Your task to perform on an android device: turn vacation reply on in the gmail app Image 0: 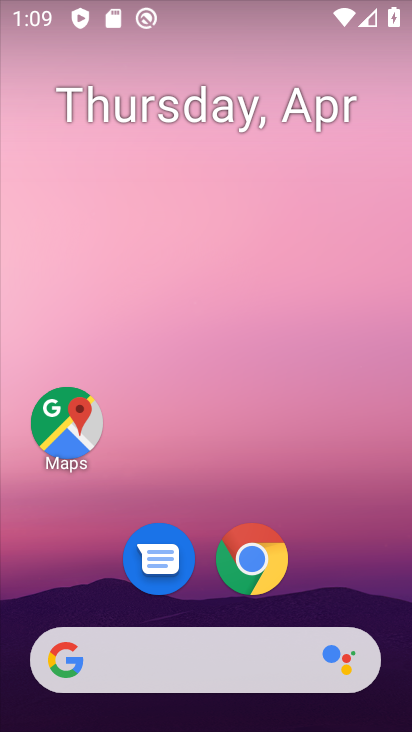
Step 0: drag from (213, 659) to (282, 342)
Your task to perform on an android device: turn vacation reply on in the gmail app Image 1: 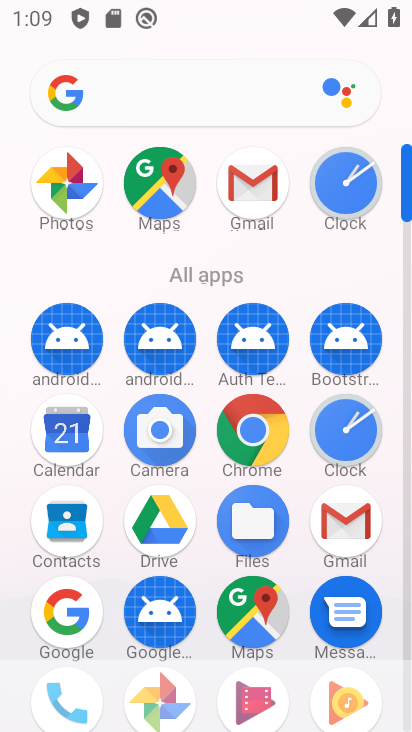
Step 1: drag from (236, 544) to (267, 260)
Your task to perform on an android device: turn vacation reply on in the gmail app Image 2: 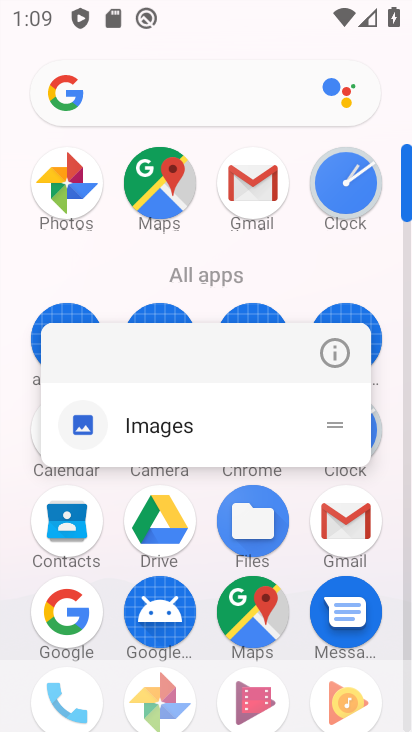
Step 2: drag from (203, 487) to (289, 198)
Your task to perform on an android device: turn vacation reply on in the gmail app Image 3: 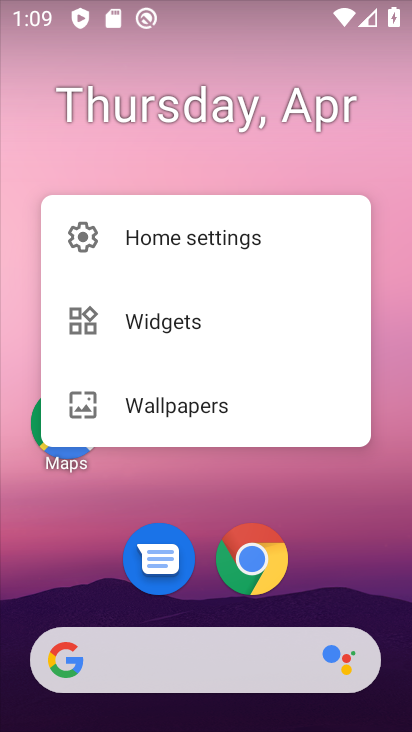
Step 3: click (294, 504)
Your task to perform on an android device: turn vacation reply on in the gmail app Image 4: 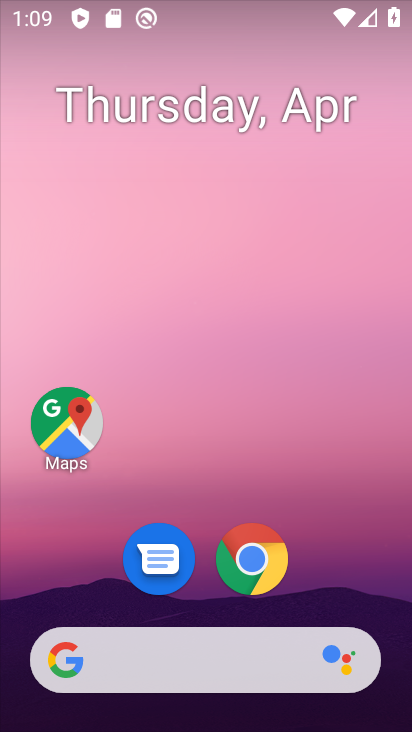
Step 4: drag from (169, 714) to (332, 257)
Your task to perform on an android device: turn vacation reply on in the gmail app Image 5: 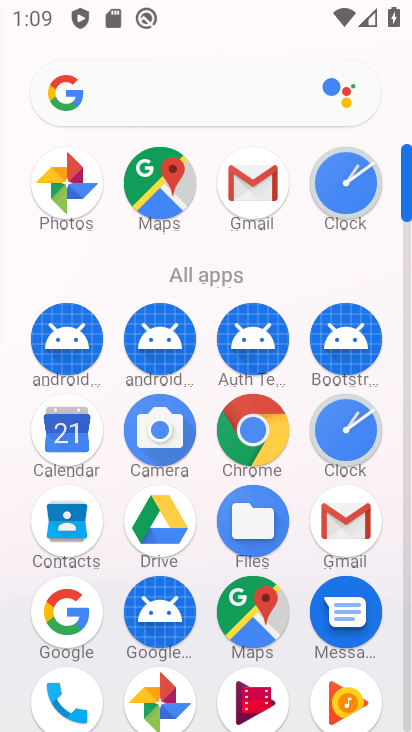
Step 5: click (355, 520)
Your task to perform on an android device: turn vacation reply on in the gmail app Image 6: 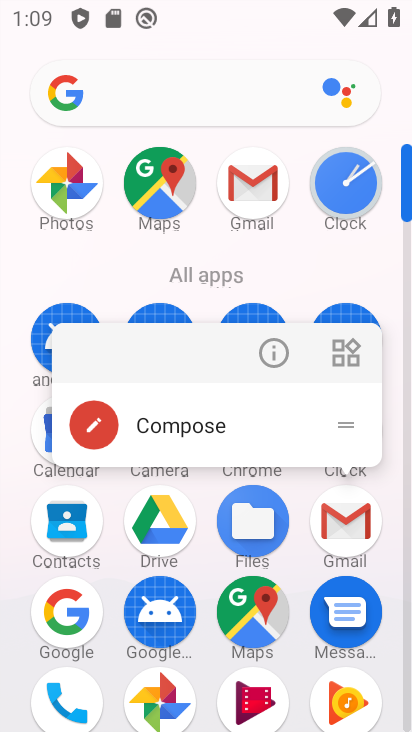
Step 6: click (356, 522)
Your task to perform on an android device: turn vacation reply on in the gmail app Image 7: 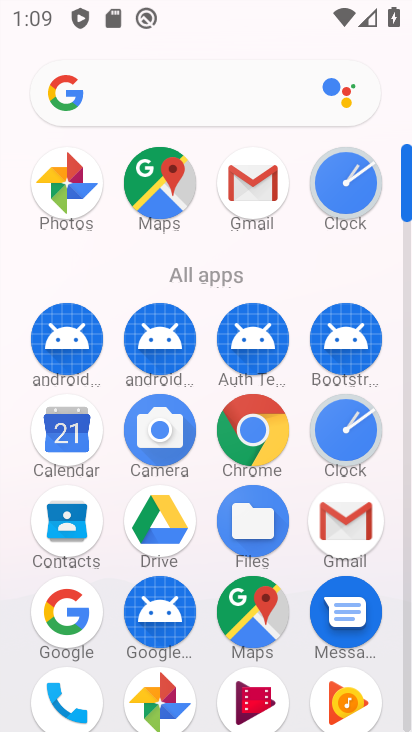
Step 7: click (356, 522)
Your task to perform on an android device: turn vacation reply on in the gmail app Image 8: 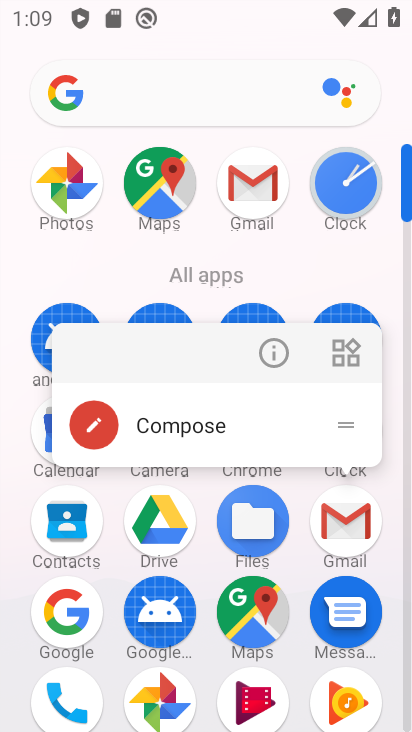
Step 8: click (356, 522)
Your task to perform on an android device: turn vacation reply on in the gmail app Image 9: 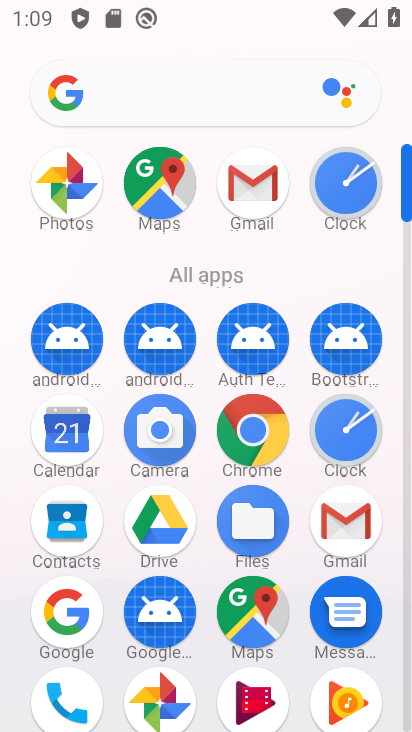
Step 9: click (356, 522)
Your task to perform on an android device: turn vacation reply on in the gmail app Image 10: 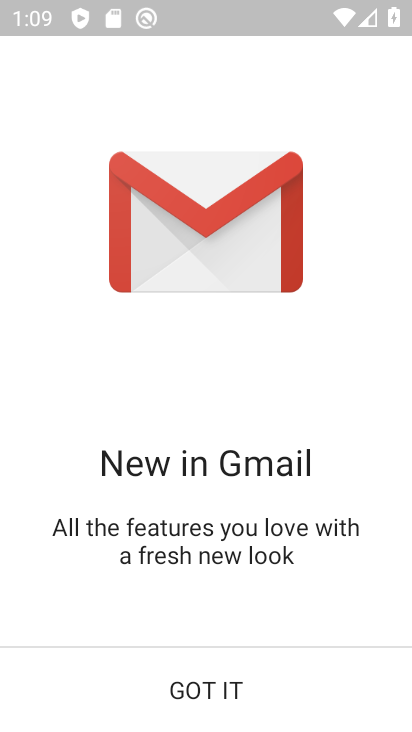
Step 10: click (227, 689)
Your task to perform on an android device: turn vacation reply on in the gmail app Image 11: 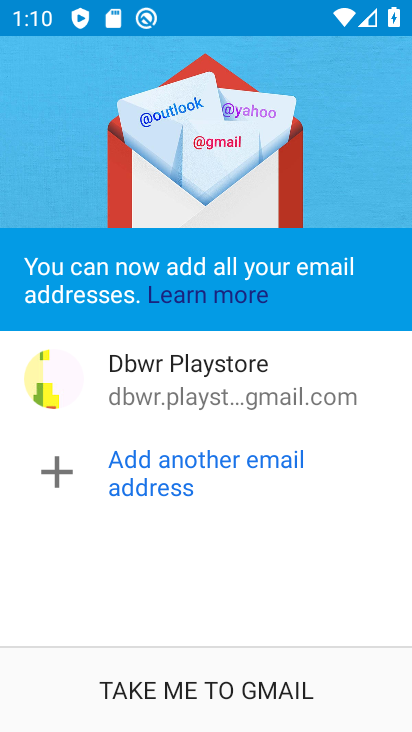
Step 11: drag from (258, 595) to (307, 384)
Your task to perform on an android device: turn vacation reply on in the gmail app Image 12: 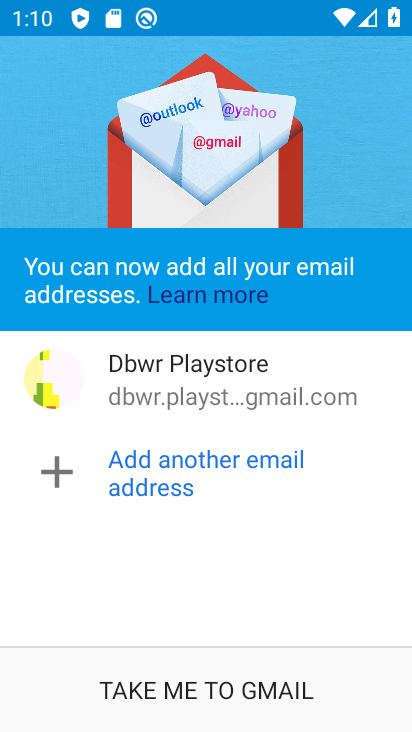
Step 12: drag from (256, 612) to (296, 431)
Your task to perform on an android device: turn vacation reply on in the gmail app Image 13: 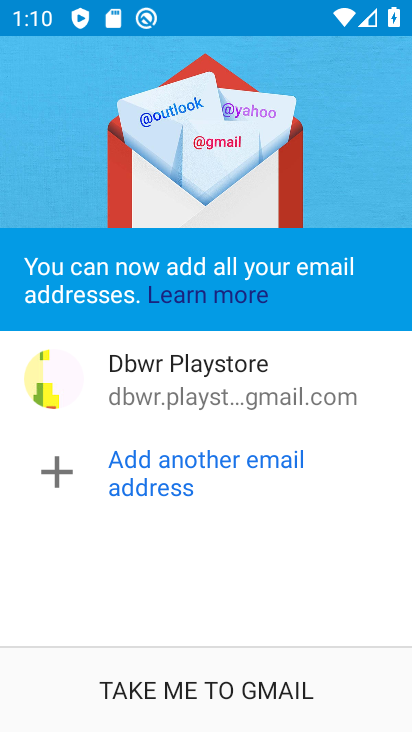
Step 13: click (248, 383)
Your task to perform on an android device: turn vacation reply on in the gmail app Image 14: 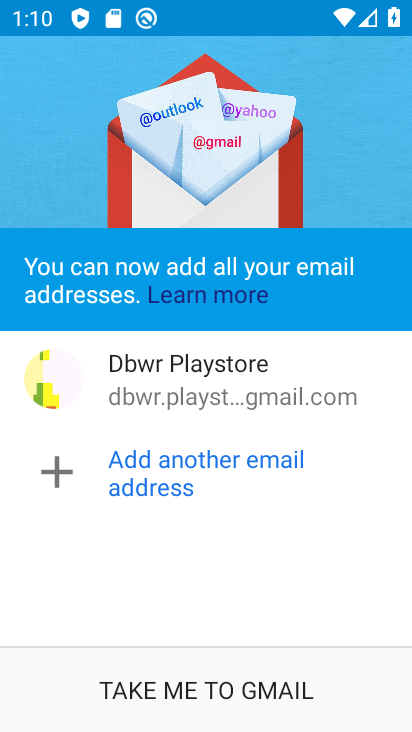
Step 14: click (275, 418)
Your task to perform on an android device: turn vacation reply on in the gmail app Image 15: 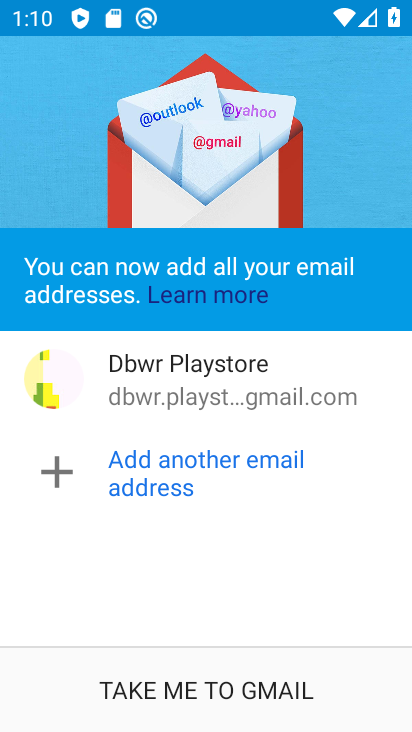
Step 15: click (289, 392)
Your task to perform on an android device: turn vacation reply on in the gmail app Image 16: 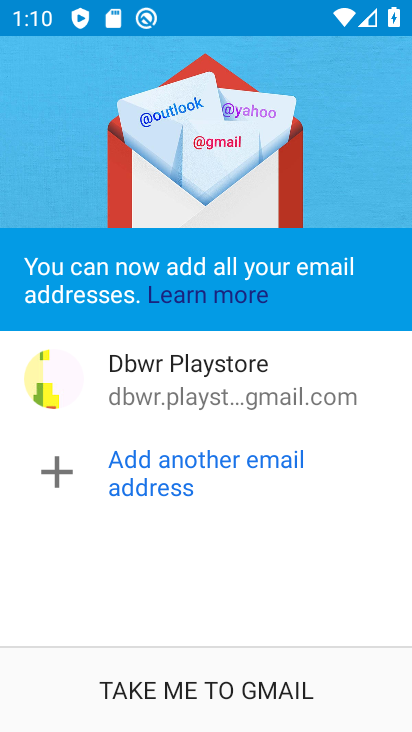
Step 16: click (233, 462)
Your task to perform on an android device: turn vacation reply on in the gmail app Image 17: 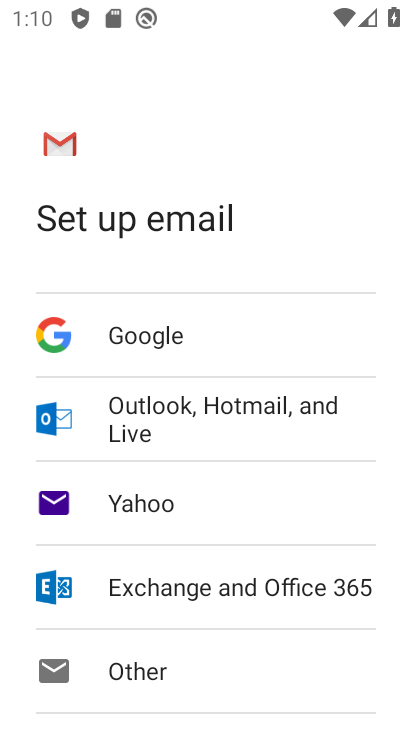
Step 17: task complete